Your task to perform on an android device: turn off wifi Image 0: 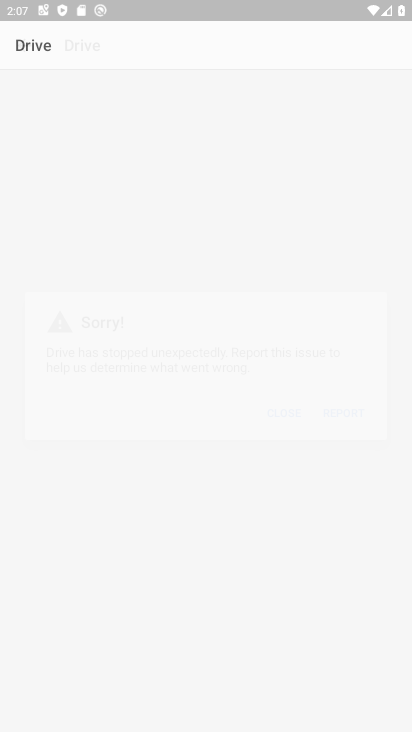
Step 0: drag from (214, 625) to (408, 276)
Your task to perform on an android device: turn off wifi Image 1: 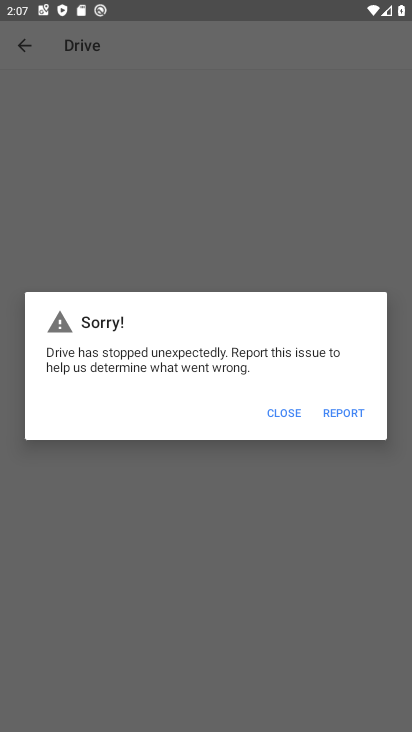
Step 1: press home button
Your task to perform on an android device: turn off wifi Image 2: 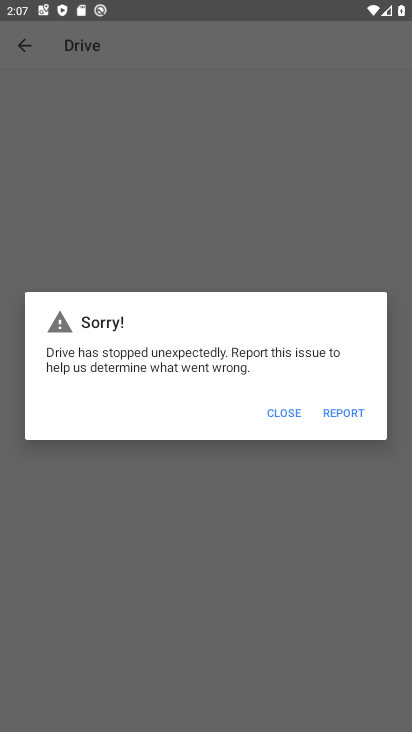
Step 2: drag from (408, 276) to (399, 507)
Your task to perform on an android device: turn off wifi Image 3: 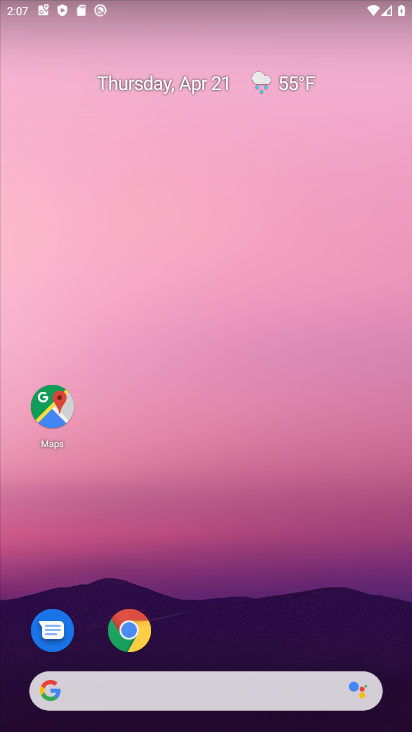
Step 3: drag from (276, 614) to (285, 109)
Your task to perform on an android device: turn off wifi Image 4: 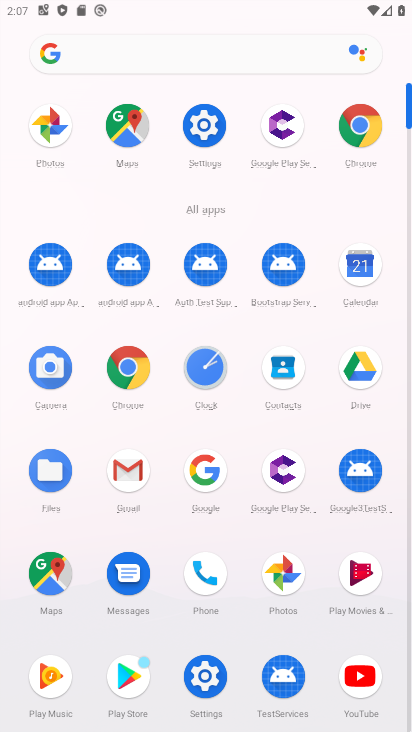
Step 4: click (194, 131)
Your task to perform on an android device: turn off wifi Image 5: 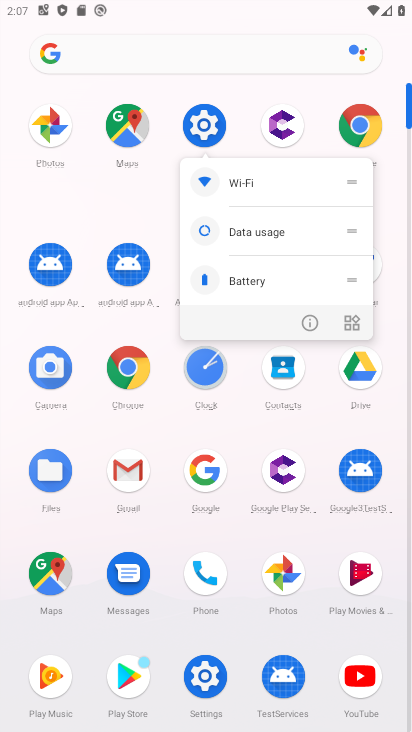
Step 5: click (202, 121)
Your task to perform on an android device: turn off wifi Image 6: 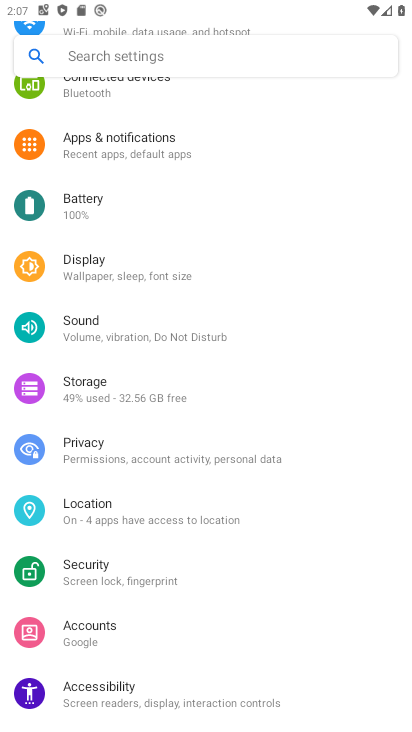
Step 6: drag from (273, 194) to (272, 600)
Your task to perform on an android device: turn off wifi Image 7: 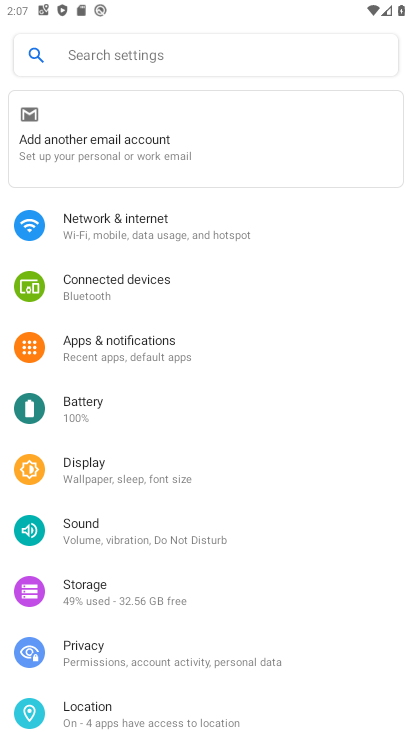
Step 7: click (221, 242)
Your task to perform on an android device: turn off wifi Image 8: 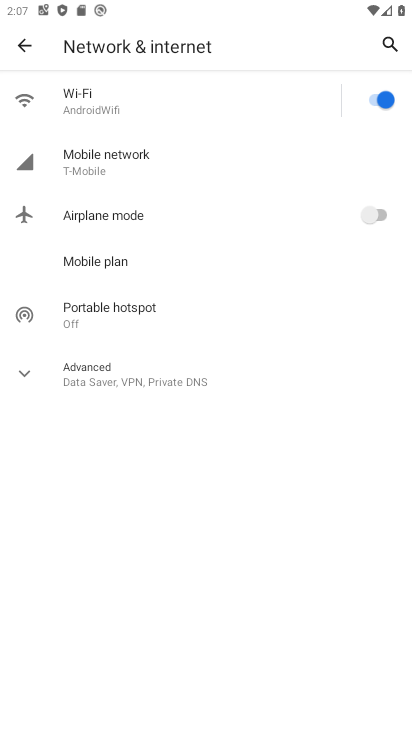
Step 8: click (129, 118)
Your task to perform on an android device: turn off wifi Image 9: 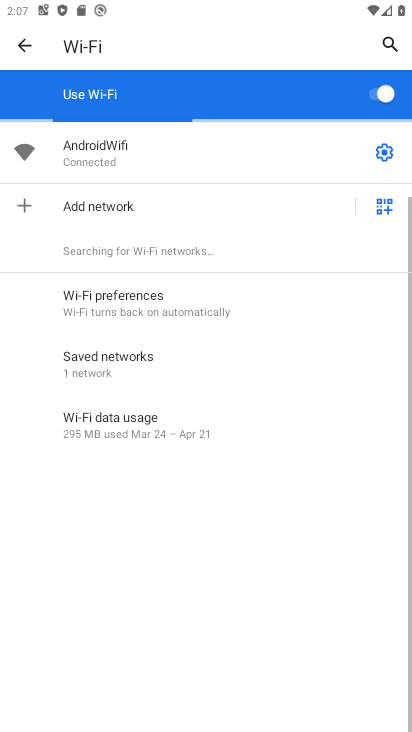
Step 9: click (389, 95)
Your task to perform on an android device: turn off wifi Image 10: 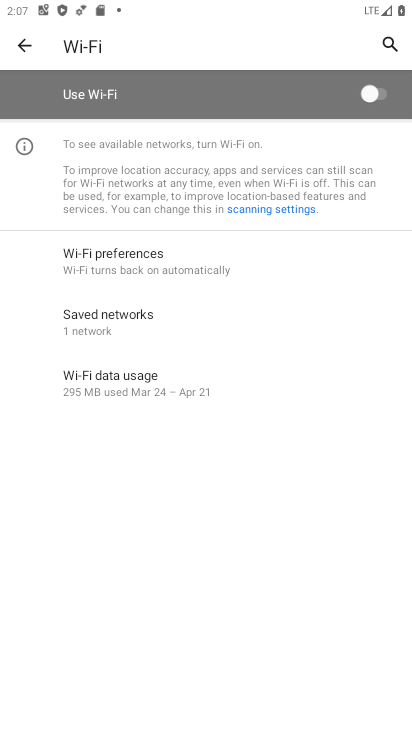
Step 10: task complete